Your task to perform on an android device: toggle javascript in the chrome app Image 0: 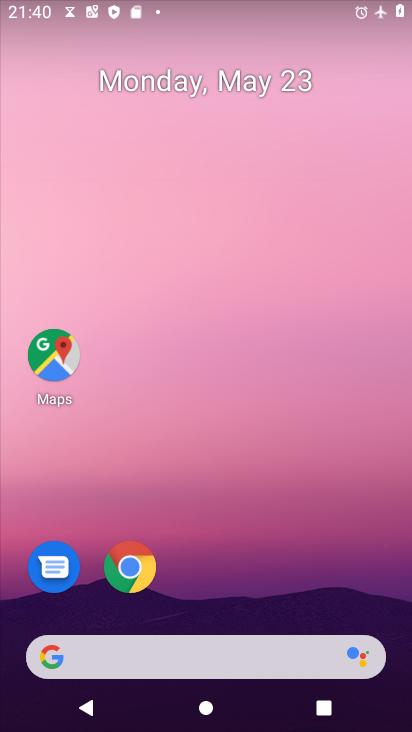
Step 0: drag from (225, 562) to (217, 190)
Your task to perform on an android device: toggle javascript in the chrome app Image 1: 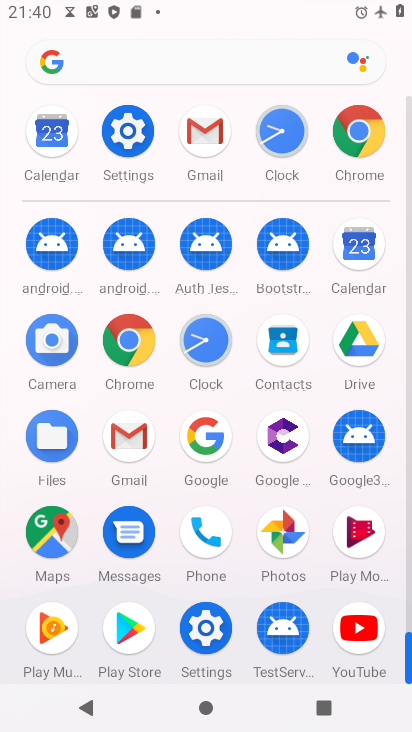
Step 1: click (121, 337)
Your task to perform on an android device: toggle javascript in the chrome app Image 2: 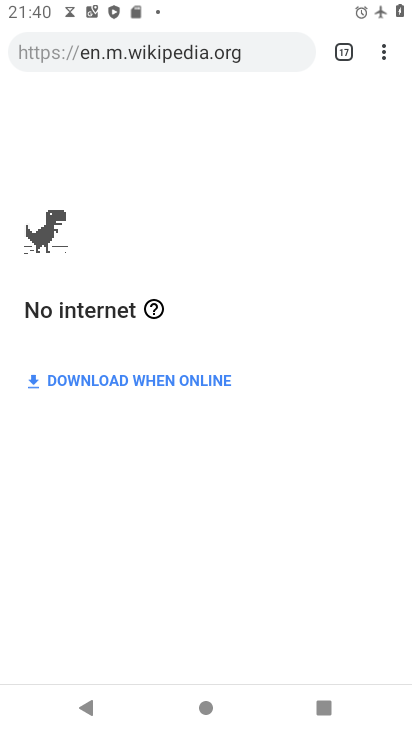
Step 2: click (382, 45)
Your task to perform on an android device: toggle javascript in the chrome app Image 3: 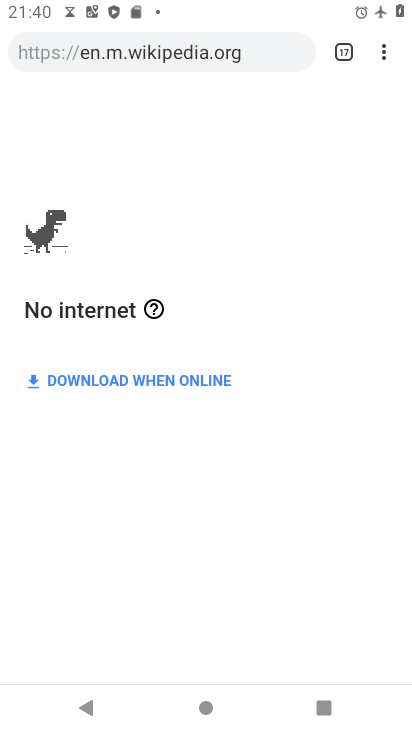
Step 3: click (378, 29)
Your task to perform on an android device: toggle javascript in the chrome app Image 4: 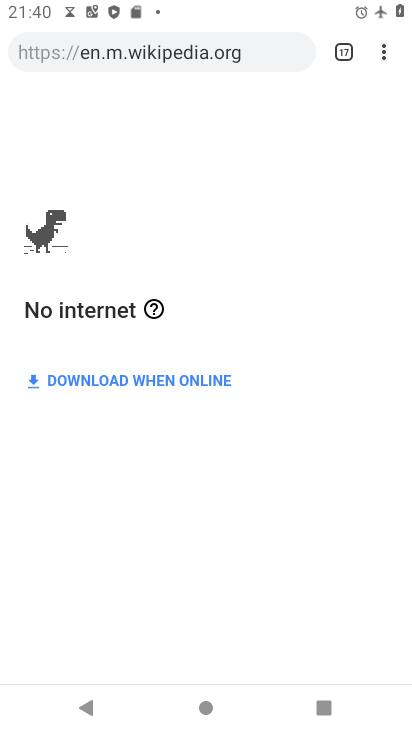
Step 4: click (379, 46)
Your task to perform on an android device: toggle javascript in the chrome app Image 5: 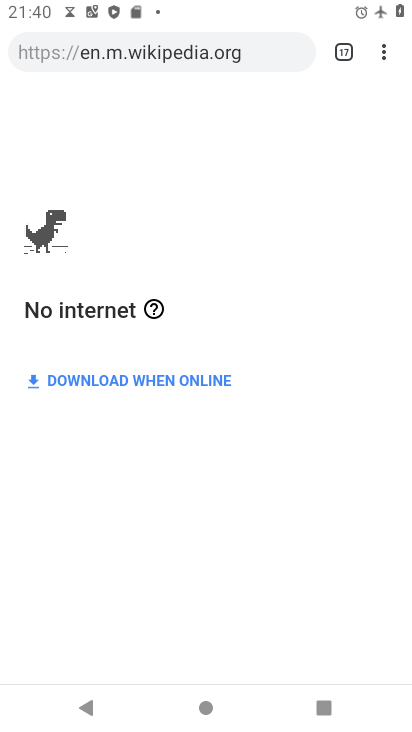
Step 5: click (379, 46)
Your task to perform on an android device: toggle javascript in the chrome app Image 6: 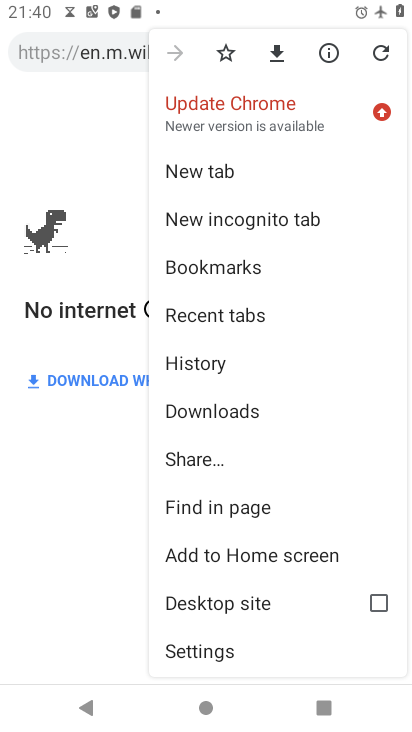
Step 6: click (253, 649)
Your task to perform on an android device: toggle javascript in the chrome app Image 7: 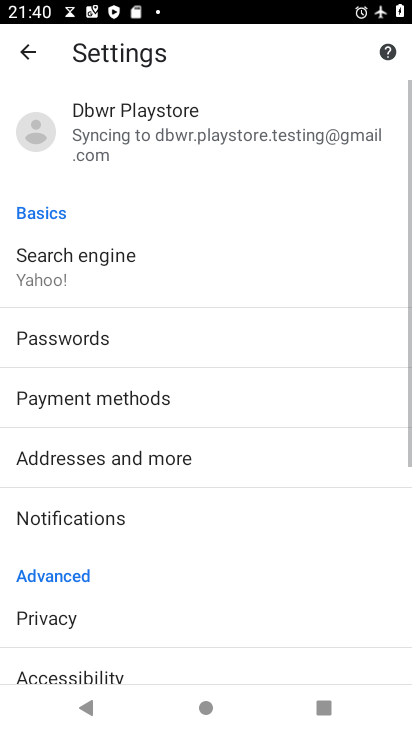
Step 7: drag from (183, 597) to (259, 180)
Your task to perform on an android device: toggle javascript in the chrome app Image 8: 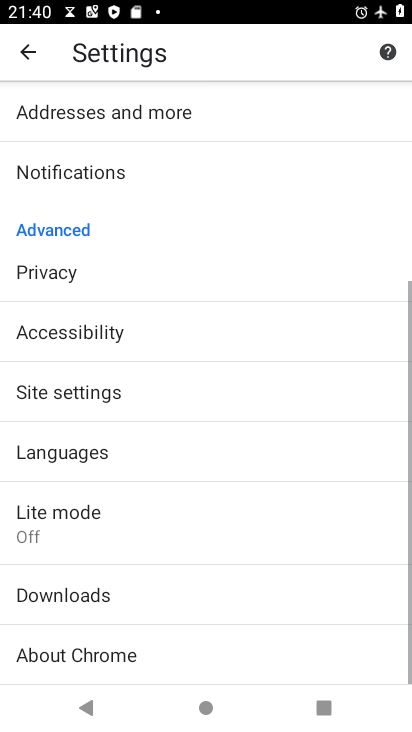
Step 8: drag from (207, 557) to (259, 271)
Your task to perform on an android device: toggle javascript in the chrome app Image 9: 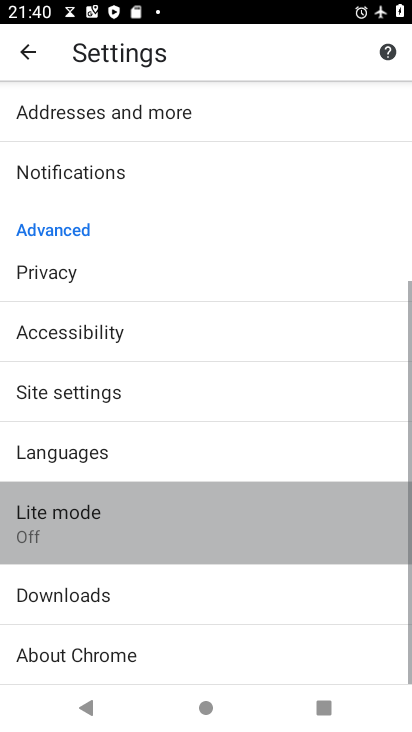
Step 9: drag from (218, 495) to (252, 242)
Your task to perform on an android device: toggle javascript in the chrome app Image 10: 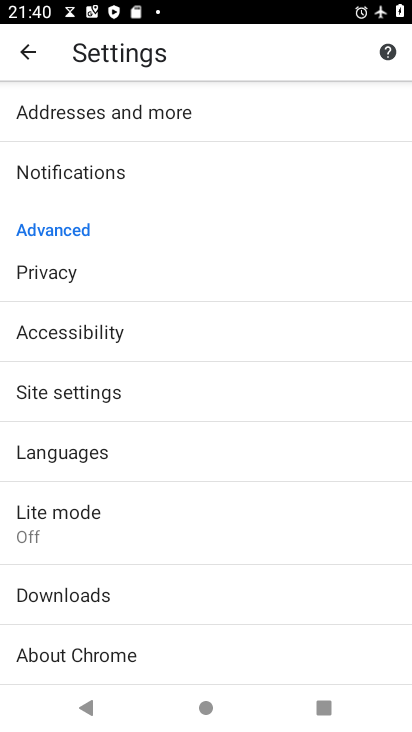
Step 10: click (162, 381)
Your task to perform on an android device: toggle javascript in the chrome app Image 11: 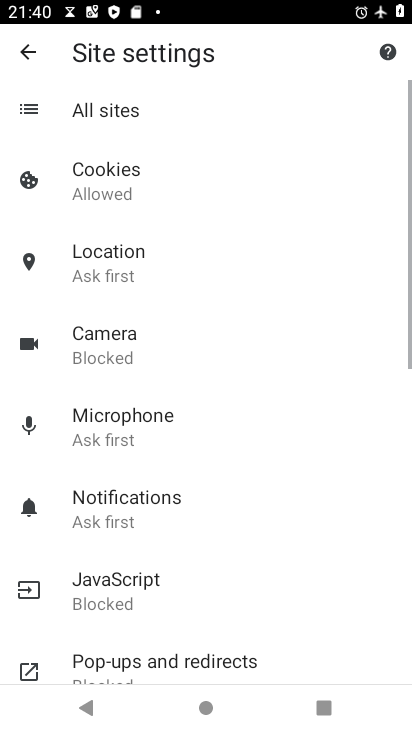
Step 11: click (141, 602)
Your task to perform on an android device: toggle javascript in the chrome app Image 12: 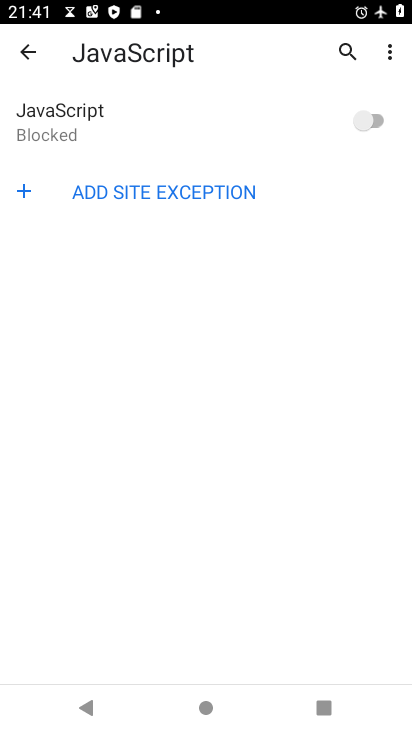
Step 12: task complete